Your task to perform on an android device: Open Google Chrome Image 0: 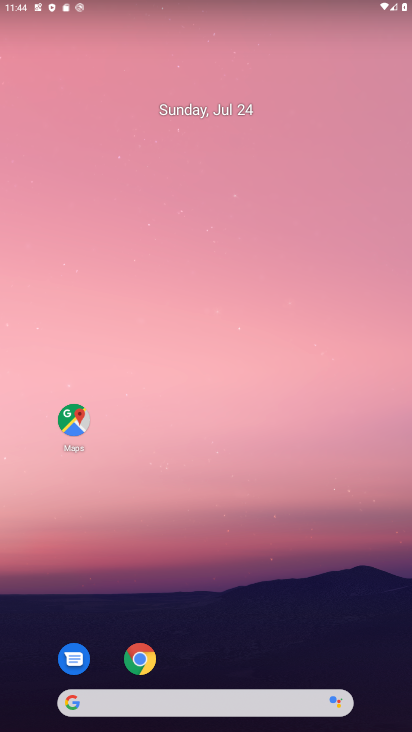
Step 0: click (141, 666)
Your task to perform on an android device: Open Google Chrome Image 1: 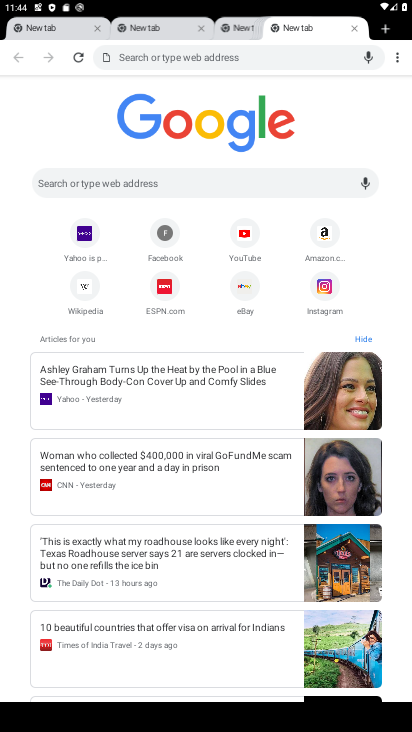
Step 1: click (400, 55)
Your task to perform on an android device: Open Google Chrome Image 2: 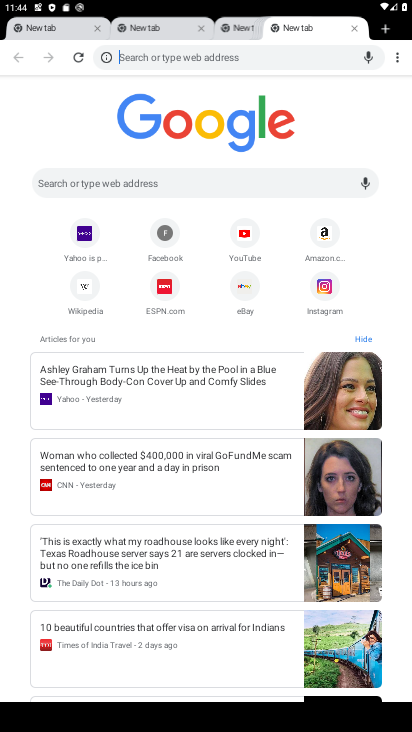
Step 2: task complete